Your task to perform on an android device: turn off javascript in the chrome app Image 0: 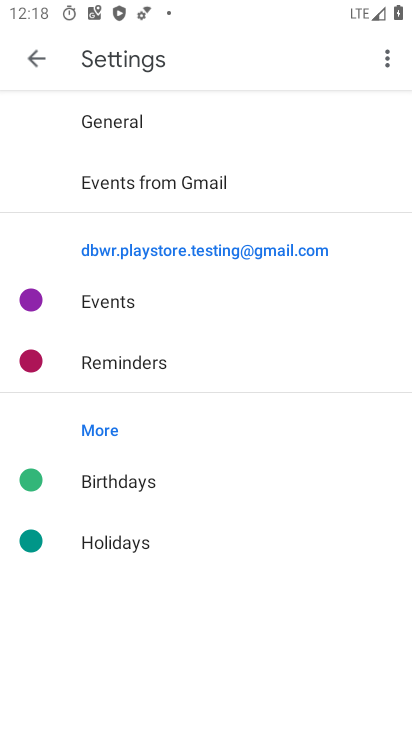
Step 0: press home button
Your task to perform on an android device: turn off javascript in the chrome app Image 1: 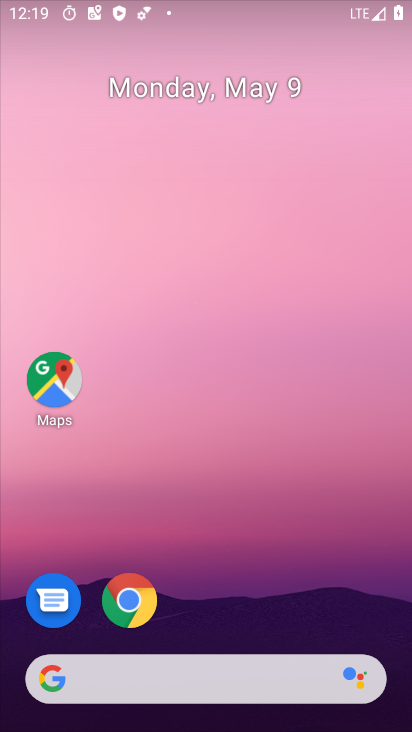
Step 1: drag from (215, 564) to (214, 222)
Your task to perform on an android device: turn off javascript in the chrome app Image 2: 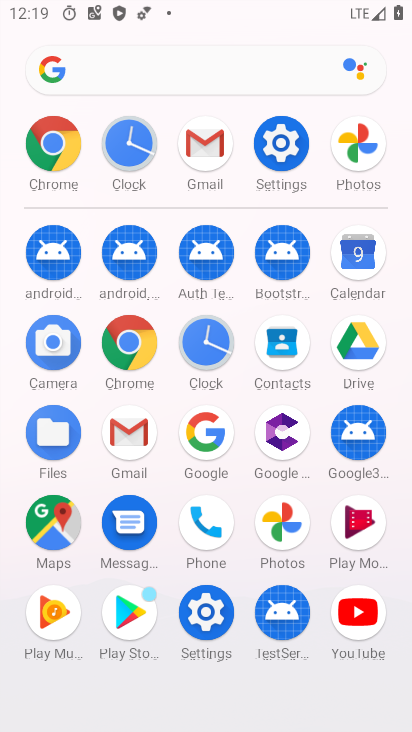
Step 2: click (149, 367)
Your task to perform on an android device: turn off javascript in the chrome app Image 3: 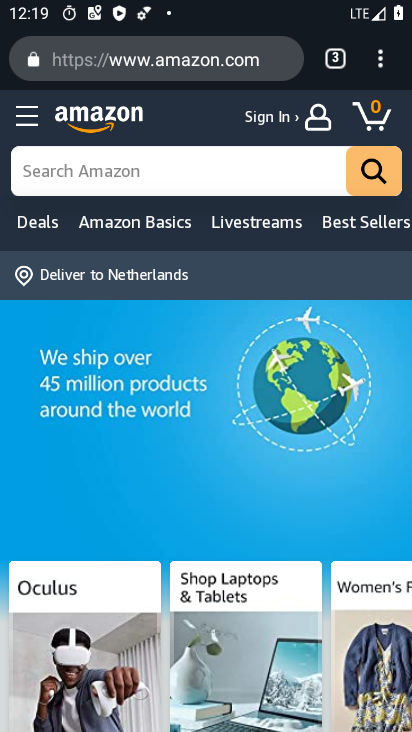
Step 3: click (384, 68)
Your task to perform on an android device: turn off javascript in the chrome app Image 4: 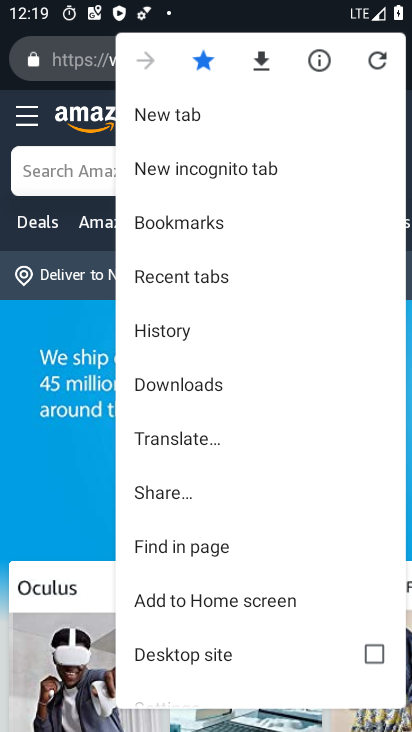
Step 4: drag from (201, 640) to (207, 406)
Your task to perform on an android device: turn off javascript in the chrome app Image 5: 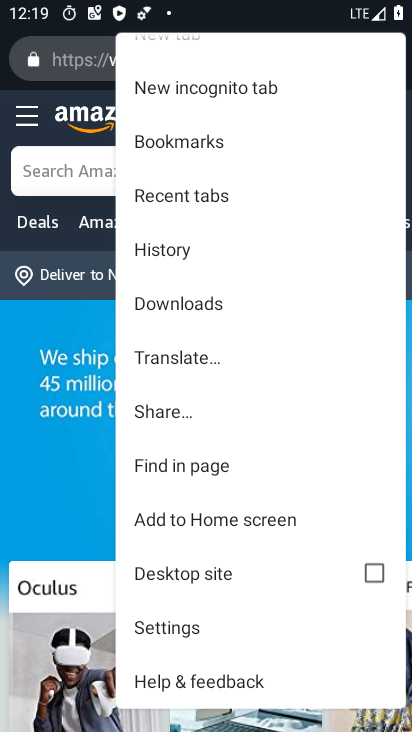
Step 5: click (193, 638)
Your task to perform on an android device: turn off javascript in the chrome app Image 6: 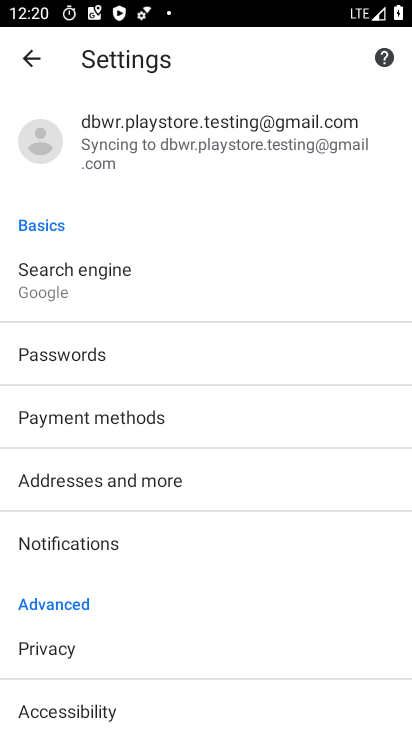
Step 6: drag from (164, 640) to (208, 421)
Your task to perform on an android device: turn off javascript in the chrome app Image 7: 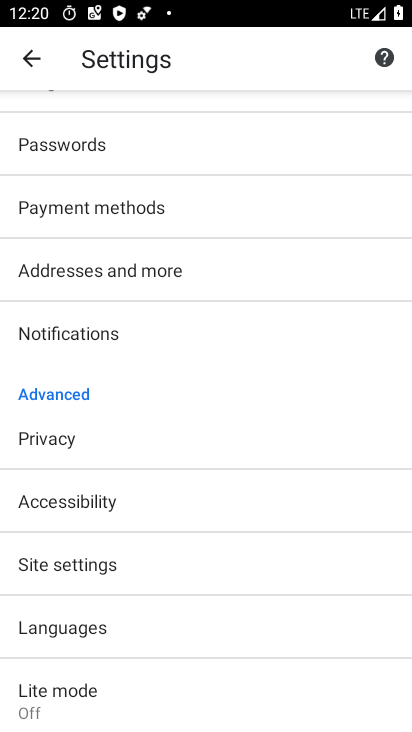
Step 7: click (101, 572)
Your task to perform on an android device: turn off javascript in the chrome app Image 8: 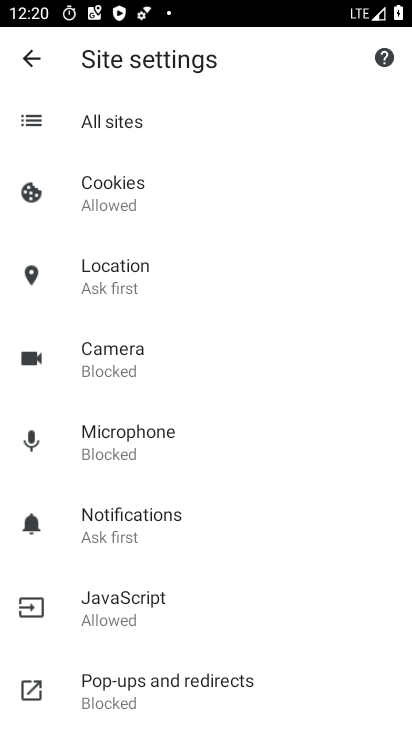
Step 8: click (166, 612)
Your task to perform on an android device: turn off javascript in the chrome app Image 9: 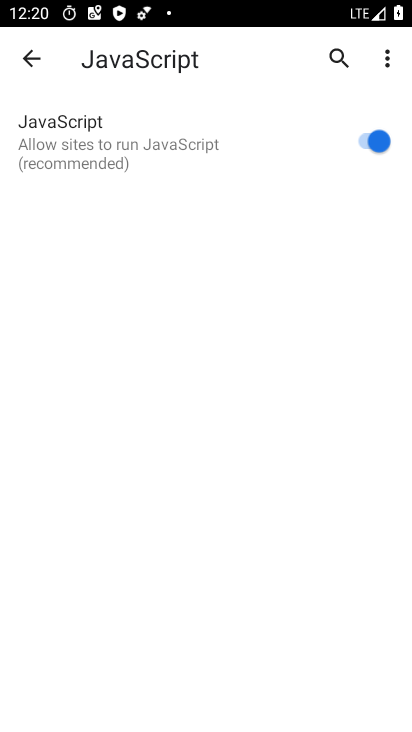
Step 9: click (376, 142)
Your task to perform on an android device: turn off javascript in the chrome app Image 10: 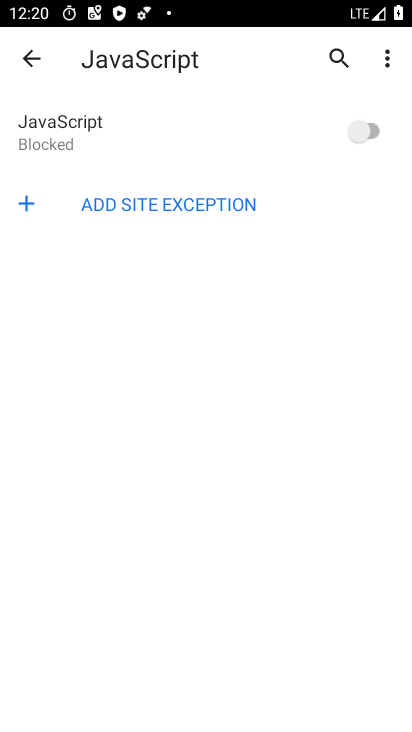
Step 10: task complete